Your task to perform on an android device: read, delete, or share a saved page in the chrome app Image 0: 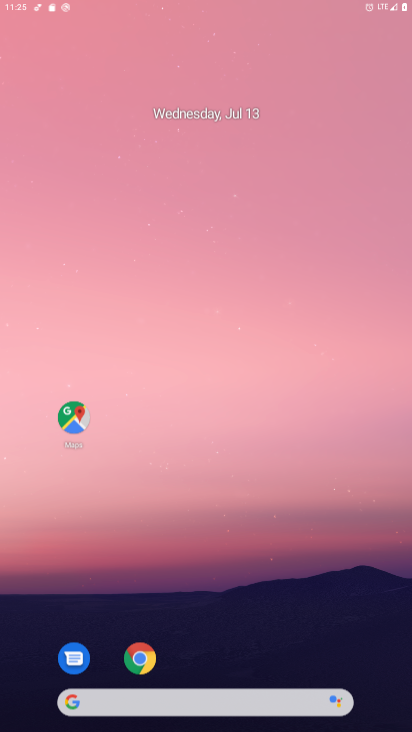
Step 0: press home button
Your task to perform on an android device: read, delete, or share a saved page in the chrome app Image 1: 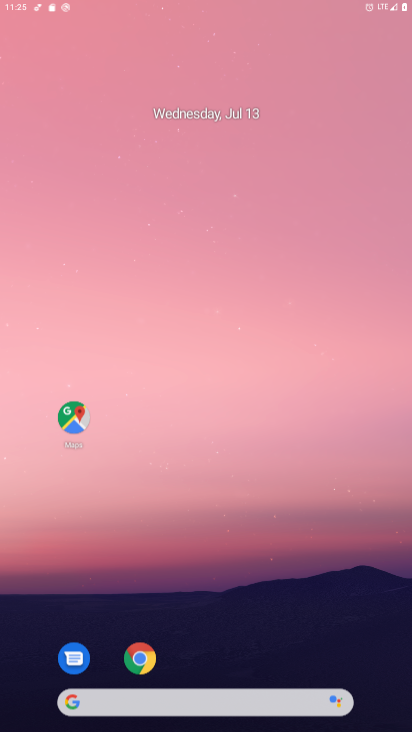
Step 1: click (189, 15)
Your task to perform on an android device: read, delete, or share a saved page in the chrome app Image 2: 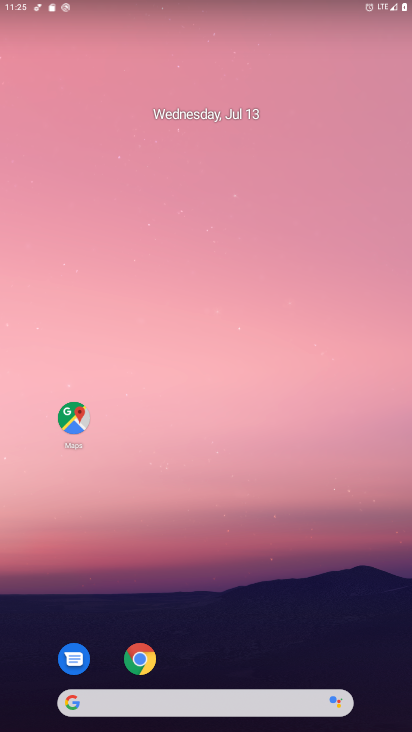
Step 2: click (139, 659)
Your task to perform on an android device: read, delete, or share a saved page in the chrome app Image 3: 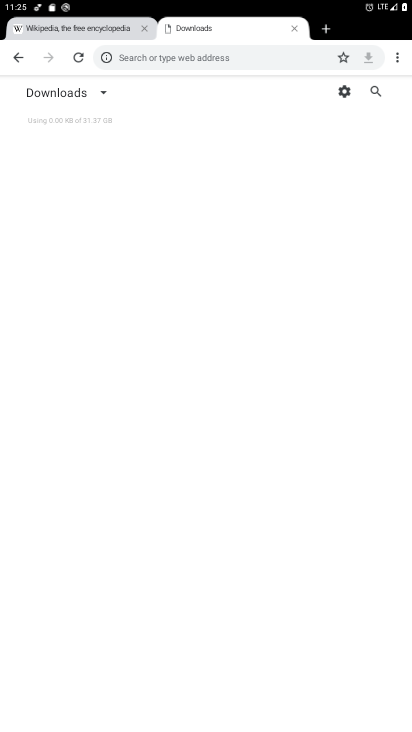
Step 3: click (397, 52)
Your task to perform on an android device: read, delete, or share a saved page in the chrome app Image 4: 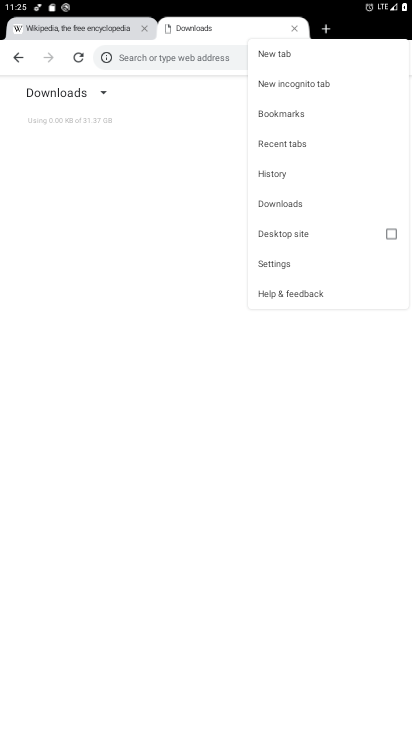
Step 4: click (305, 200)
Your task to perform on an android device: read, delete, or share a saved page in the chrome app Image 5: 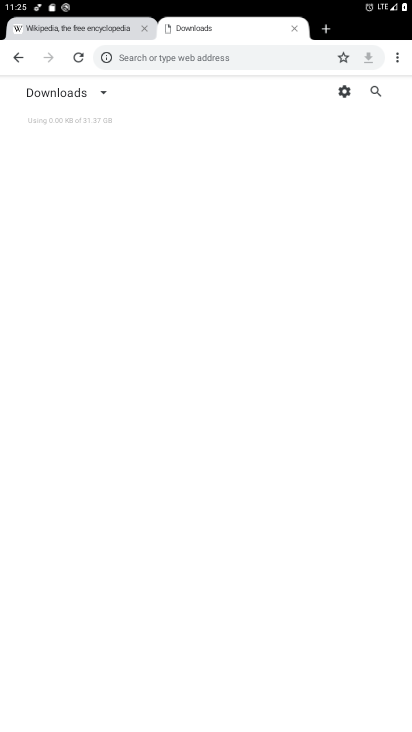
Step 5: task complete